Your task to perform on an android device: find photos in the google photos app Image 0: 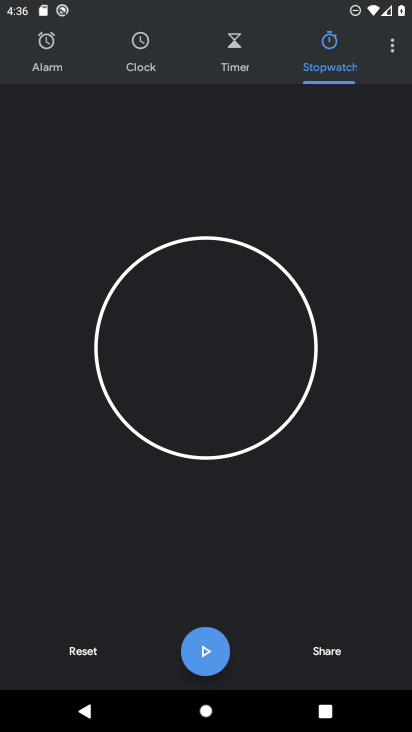
Step 0: press home button
Your task to perform on an android device: find photos in the google photos app Image 1: 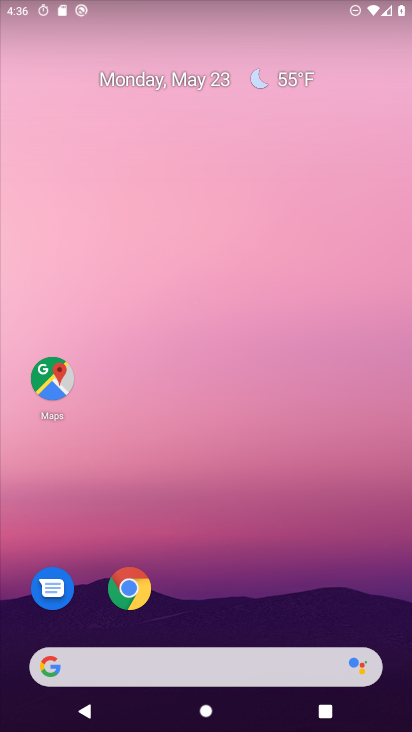
Step 1: drag from (264, 581) to (188, 81)
Your task to perform on an android device: find photos in the google photos app Image 2: 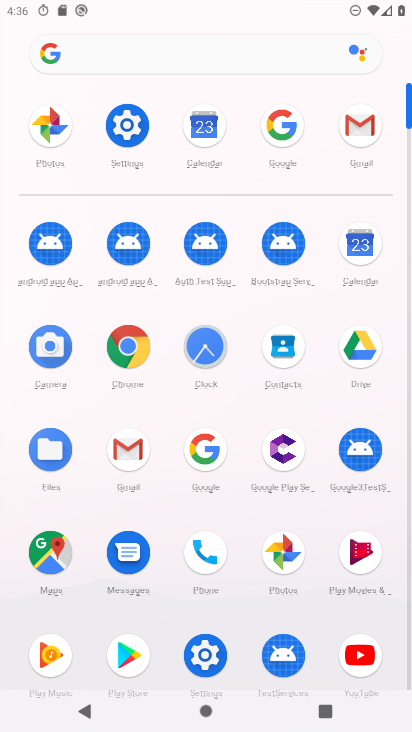
Step 2: click (281, 545)
Your task to perform on an android device: find photos in the google photos app Image 3: 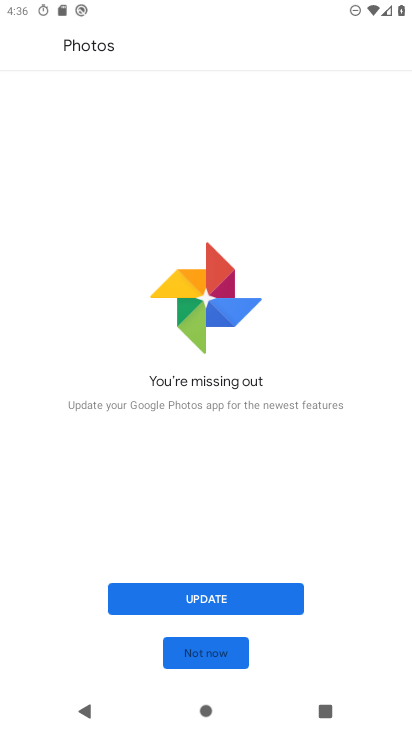
Step 3: click (198, 600)
Your task to perform on an android device: find photos in the google photos app Image 4: 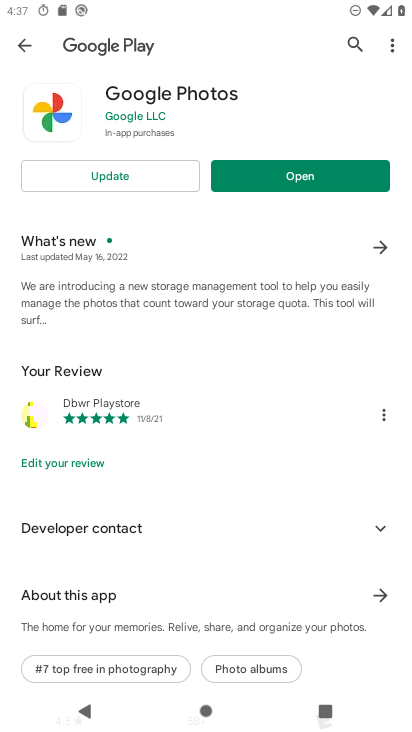
Step 4: click (306, 179)
Your task to perform on an android device: find photos in the google photos app Image 5: 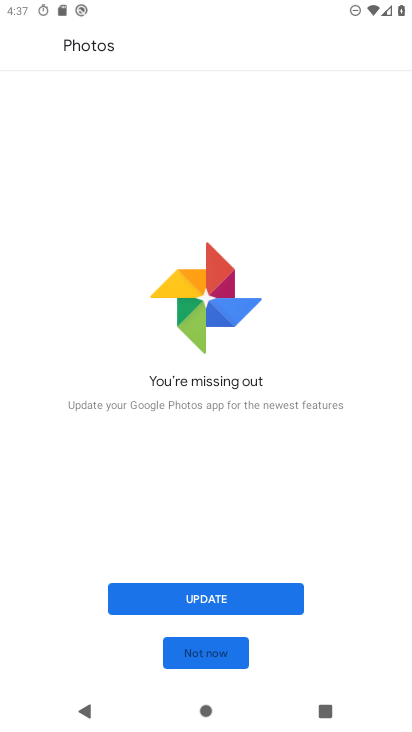
Step 5: click (194, 596)
Your task to perform on an android device: find photos in the google photos app Image 6: 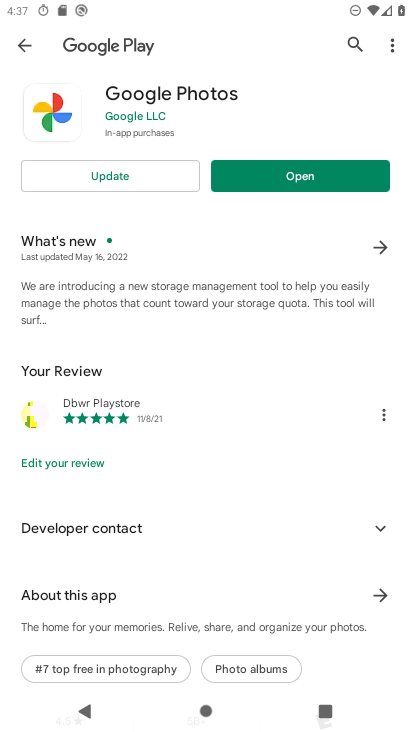
Step 6: click (129, 178)
Your task to perform on an android device: find photos in the google photos app Image 7: 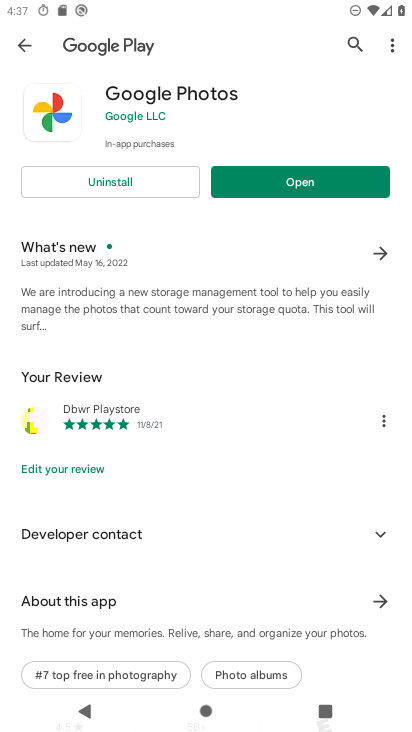
Step 7: click (331, 175)
Your task to perform on an android device: find photos in the google photos app Image 8: 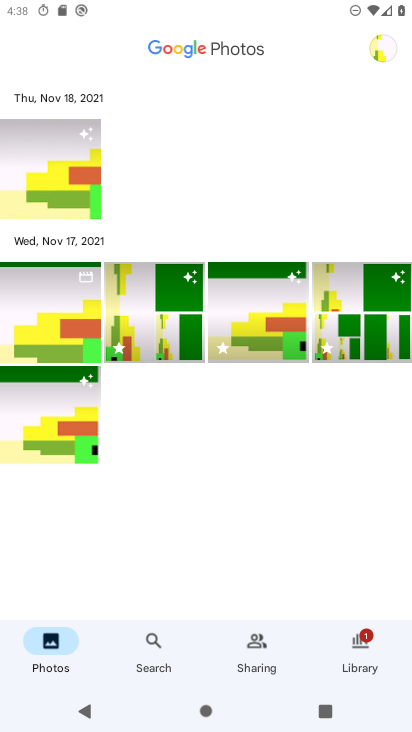
Step 8: task complete